Your task to perform on an android device: set the stopwatch Image 0: 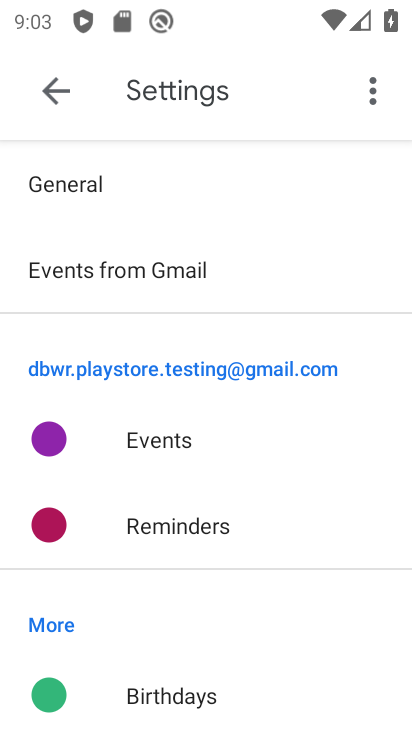
Step 0: press home button
Your task to perform on an android device: set the stopwatch Image 1: 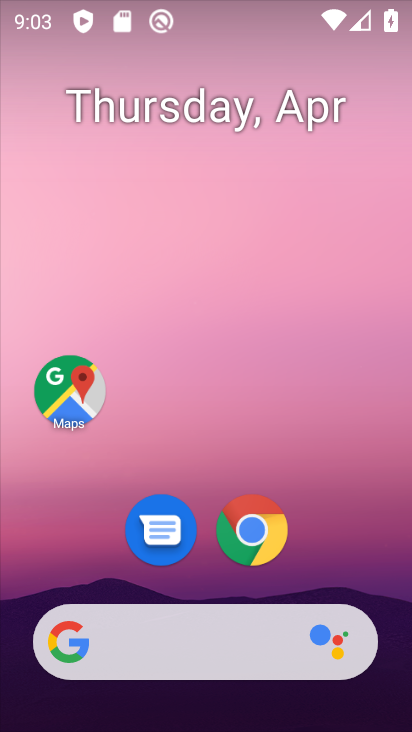
Step 1: drag from (335, 515) to (263, 75)
Your task to perform on an android device: set the stopwatch Image 2: 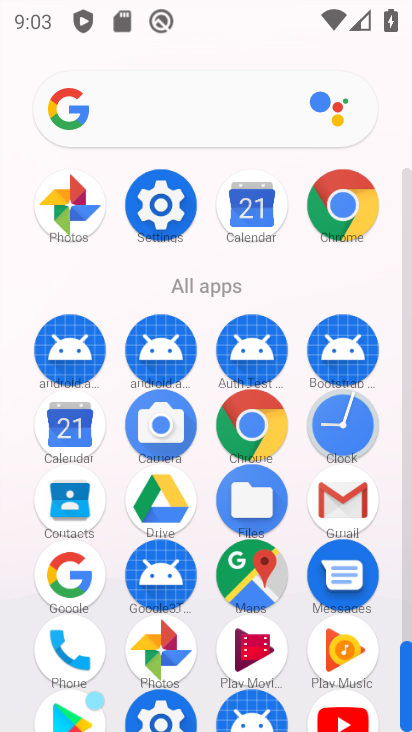
Step 2: drag from (299, 292) to (297, 50)
Your task to perform on an android device: set the stopwatch Image 3: 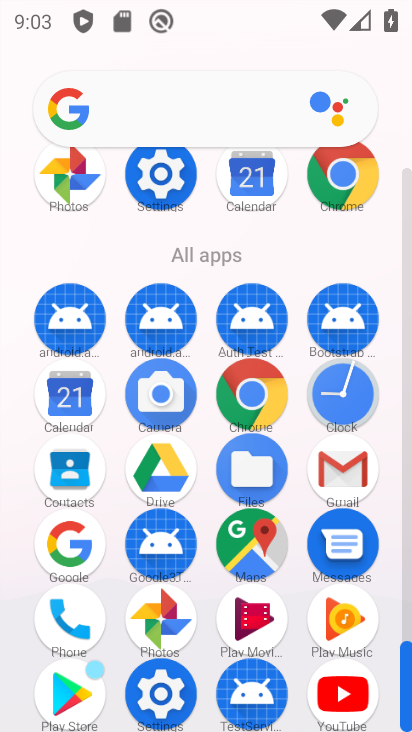
Step 3: click (354, 406)
Your task to perform on an android device: set the stopwatch Image 4: 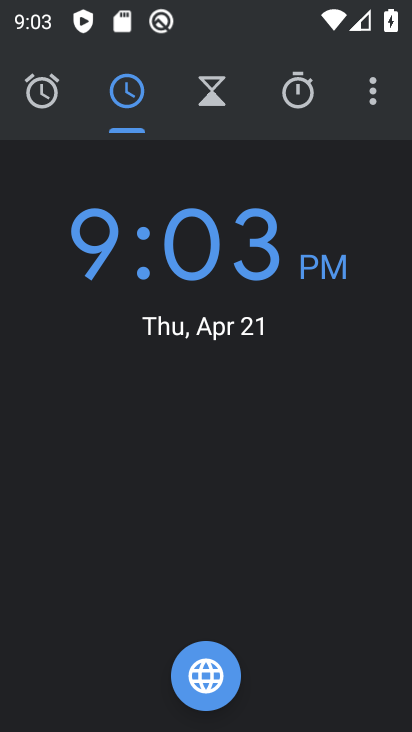
Step 4: click (298, 88)
Your task to perform on an android device: set the stopwatch Image 5: 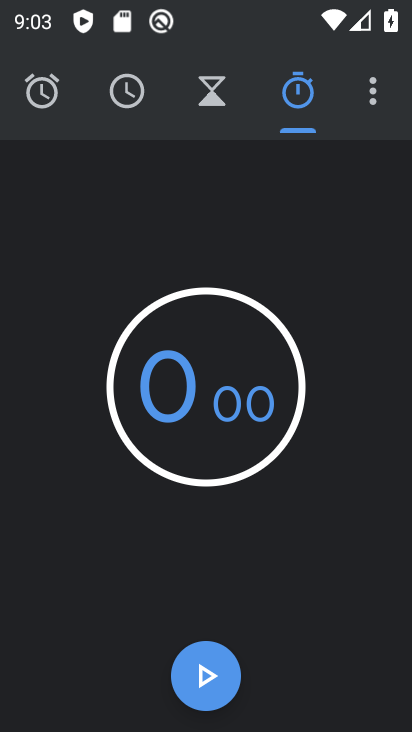
Step 5: click (225, 674)
Your task to perform on an android device: set the stopwatch Image 6: 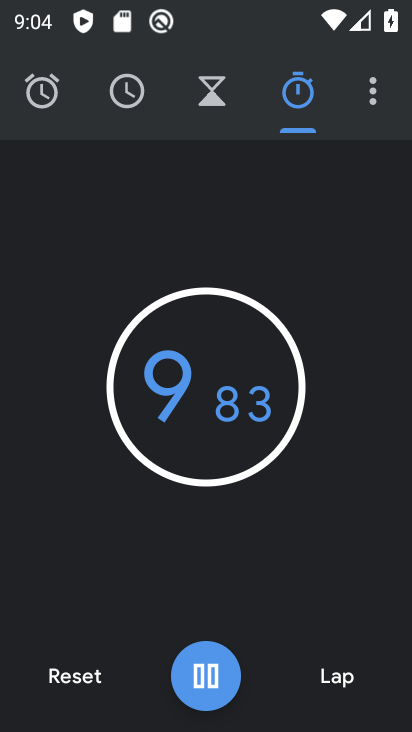
Step 6: task complete